Your task to perform on an android device: Open the phone app and click the voicemail tab. Image 0: 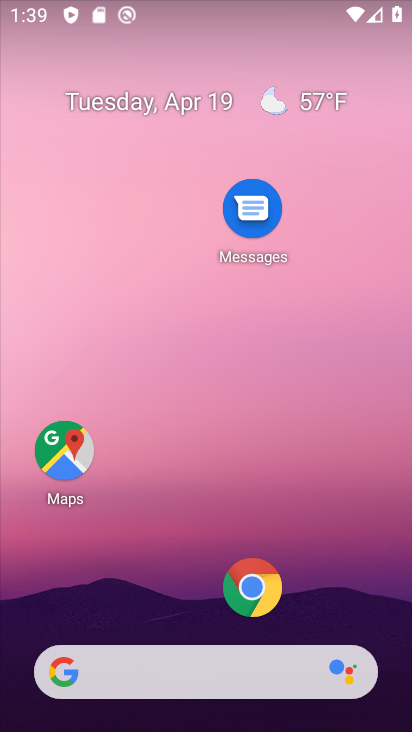
Step 0: drag from (173, 419) to (192, 53)
Your task to perform on an android device: Open the phone app and click the voicemail tab. Image 1: 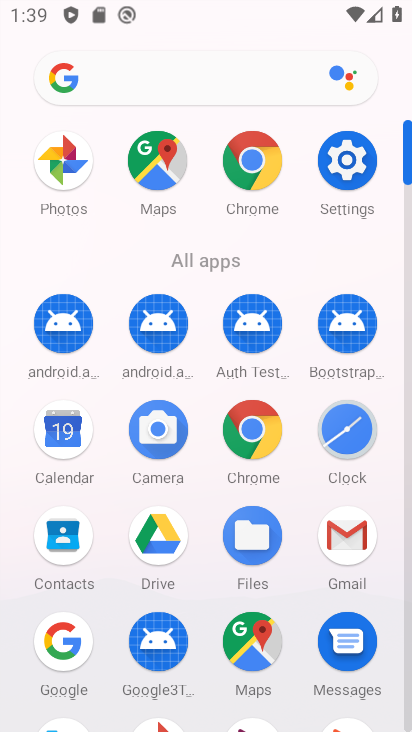
Step 1: drag from (271, 609) to (318, 332)
Your task to perform on an android device: Open the phone app and click the voicemail tab. Image 2: 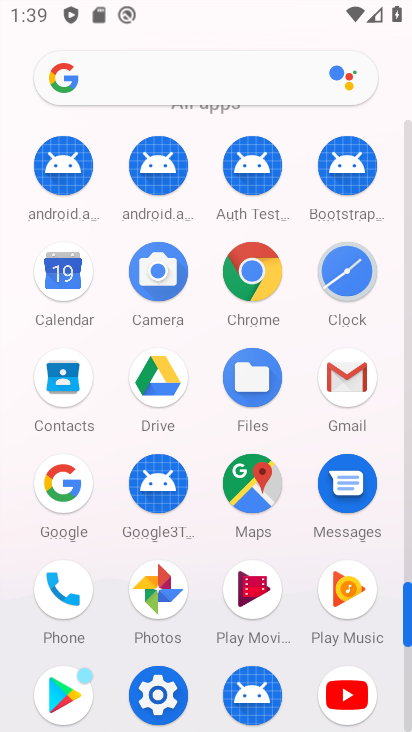
Step 2: click (69, 571)
Your task to perform on an android device: Open the phone app and click the voicemail tab. Image 3: 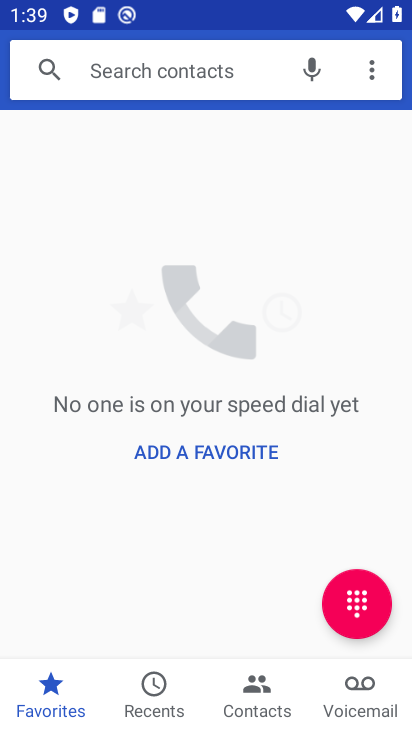
Step 3: click (348, 692)
Your task to perform on an android device: Open the phone app and click the voicemail tab. Image 4: 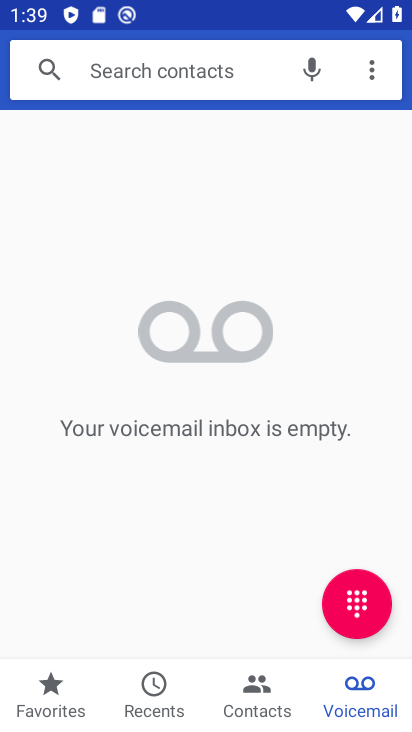
Step 4: task complete